Your task to perform on an android device: Go to display settings Image 0: 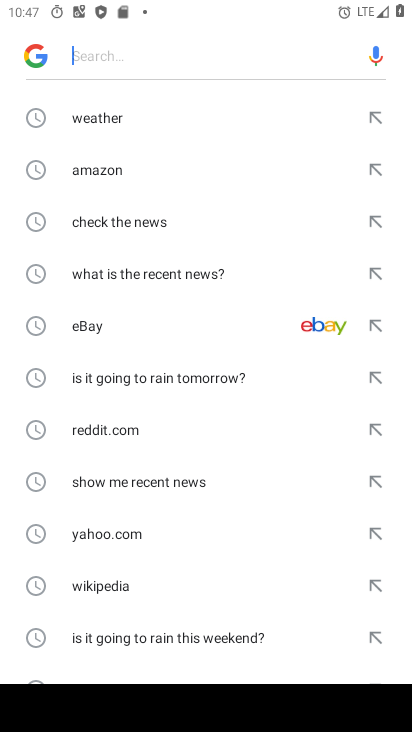
Step 0: press home button
Your task to perform on an android device: Go to display settings Image 1: 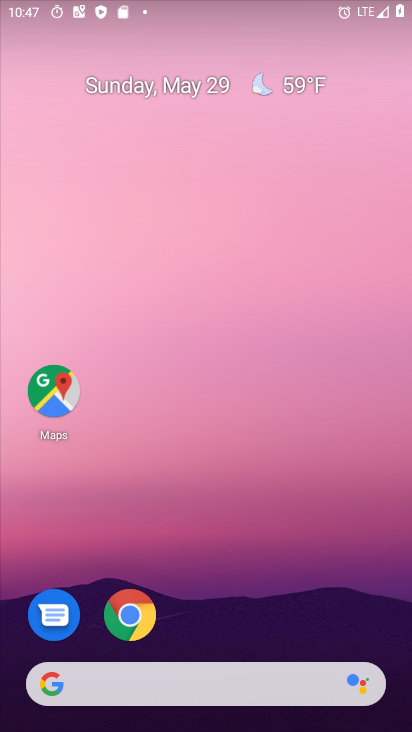
Step 1: drag from (228, 603) to (217, 55)
Your task to perform on an android device: Go to display settings Image 2: 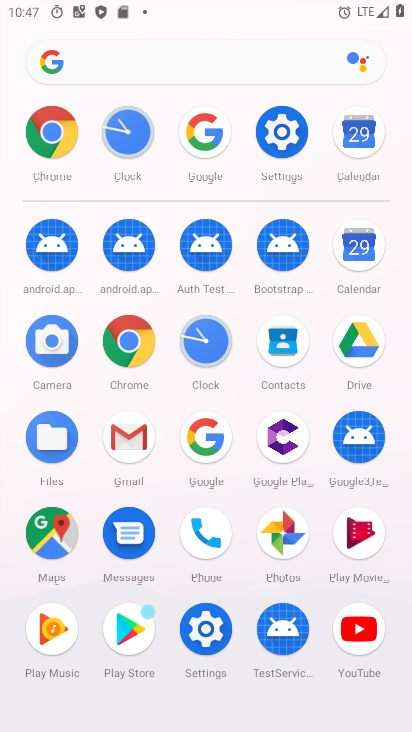
Step 2: click (280, 134)
Your task to perform on an android device: Go to display settings Image 3: 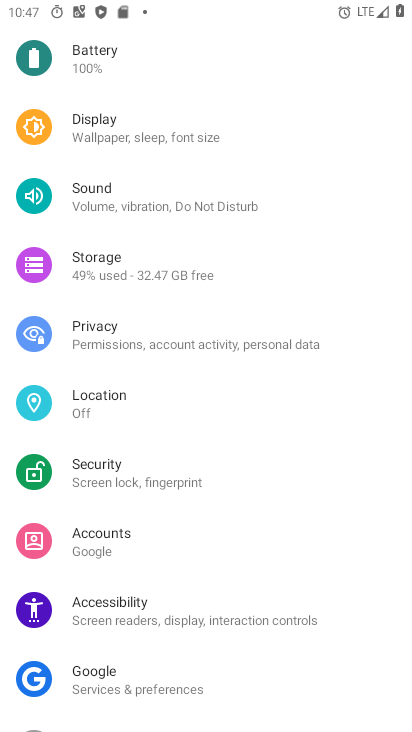
Step 3: click (101, 135)
Your task to perform on an android device: Go to display settings Image 4: 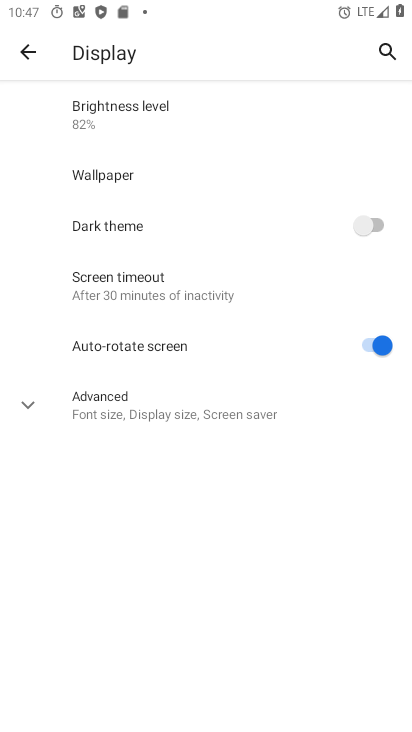
Step 4: task complete